Your task to perform on an android device: Open display settings Image 0: 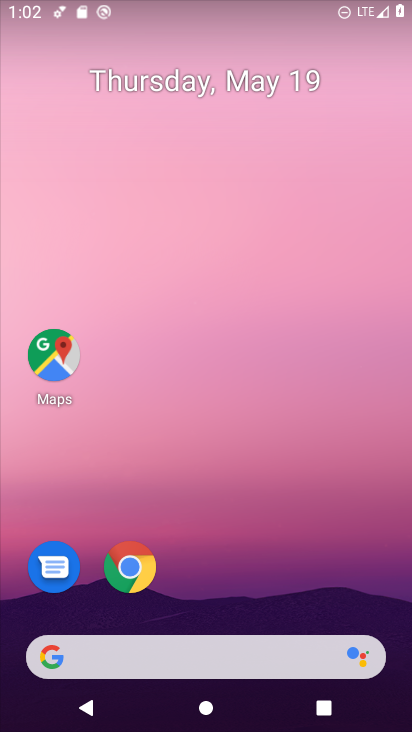
Step 0: drag from (246, 495) to (215, 18)
Your task to perform on an android device: Open display settings Image 1: 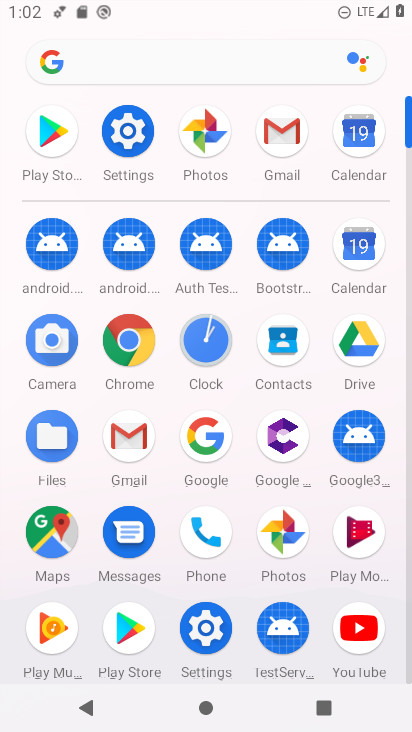
Step 1: click (140, 133)
Your task to perform on an android device: Open display settings Image 2: 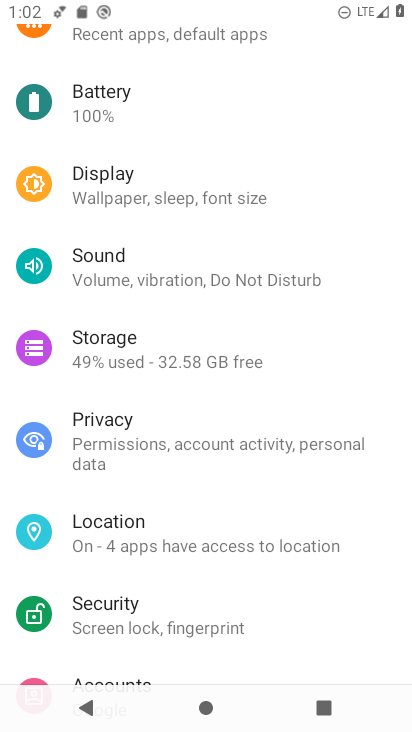
Step 2: click (183, 176)
Your task to perform on an android device: Open display settings Image 3: 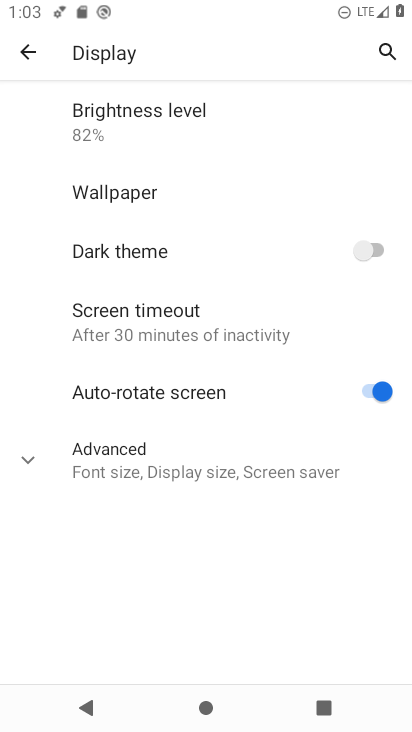
Step 3: task complete